Your task to perform on an android device: Open Maps and search for coffee Image 0: 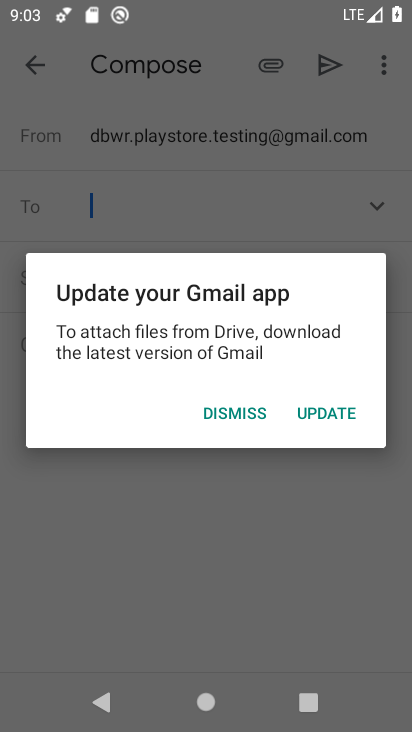
Step 0: press home button
Your task to perform on an android device: Open Maps and search for coffee Image 1: 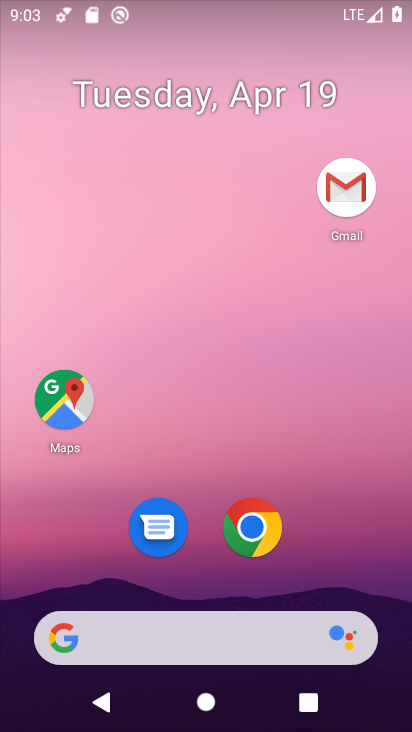
Step 1: drag from (349, 505) to (291, 80)
Your task to perform on an android device: Open Maps and search for coffee Image 2: 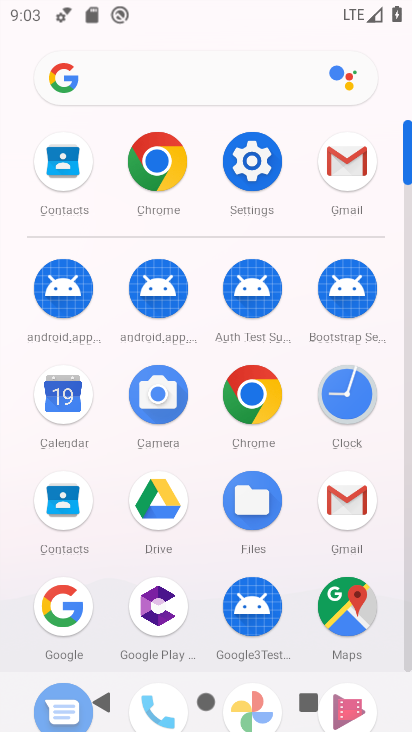
Step 2: click (326, 608)
Your task to perform on an android device: Open Maps and search for coffee Image 3: 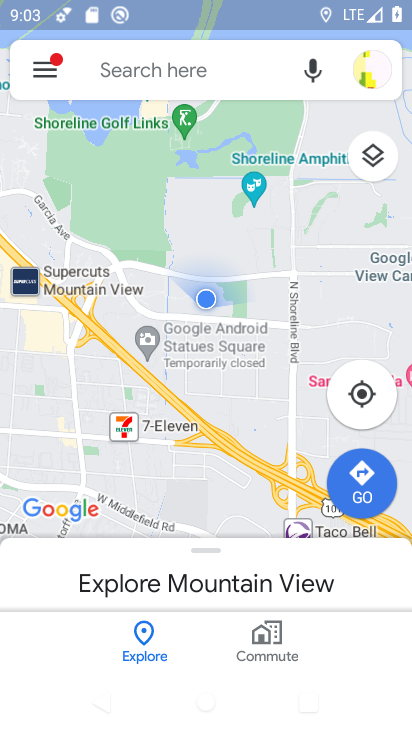
Step 3: click (200, 88)
Your task to perform on an android device: Open Maps and search for coffee Image 4: 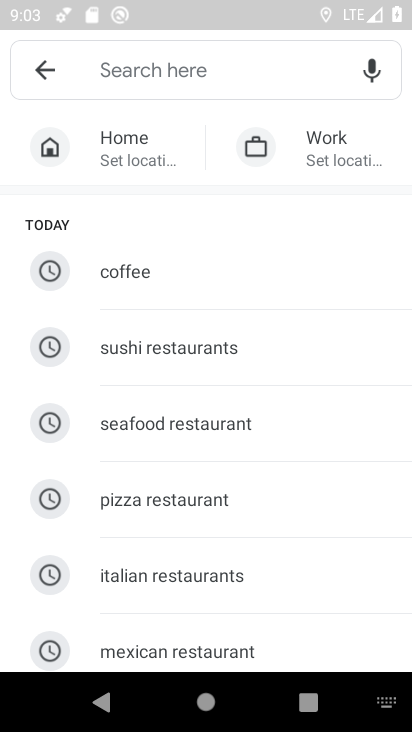
Step 4: click (138, 277)
Your task to perform on an android device: Open Maps and search for coffee Image 5: 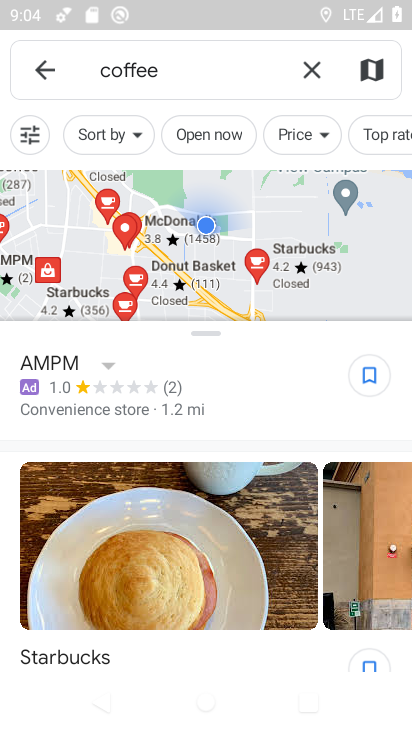
Step 5: task complete